Your task to perform on an android device: turn off sleep mode Image 0: 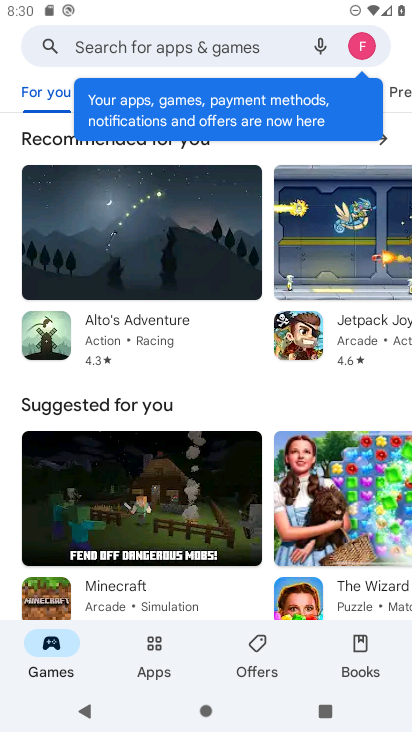
Step 0: press home button
Your task to perform on an android device: turn off sleep mode Image 1: 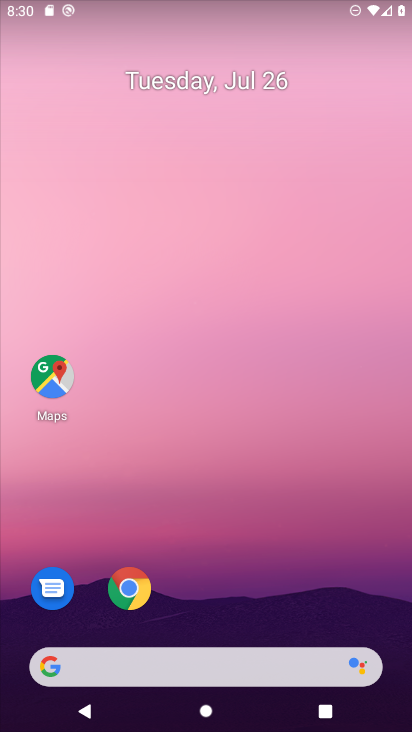
Step 1: drag from (220, 620) to (206, 58)
Your task to perform on an android device: turn off sleep mode Image 2: 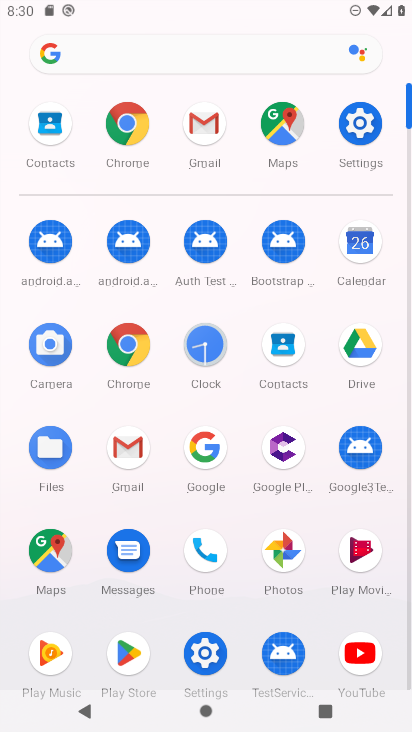
Step 2: click (357, 135)
Your task to perform on an android device: turn off sleep mode Image 3: 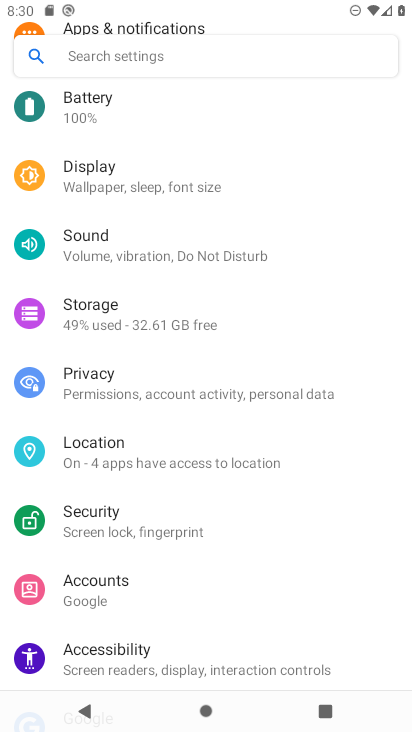
Step 3: click (80, 187)
Your task to perform on an android device: turn off sleep mode Image 4: 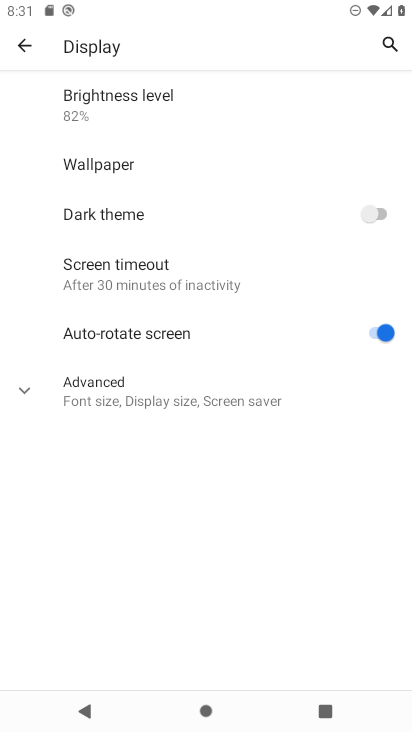
Step 4: click (32, 395)
Your task to perform on an android device: turn off sleep mode Image 5: 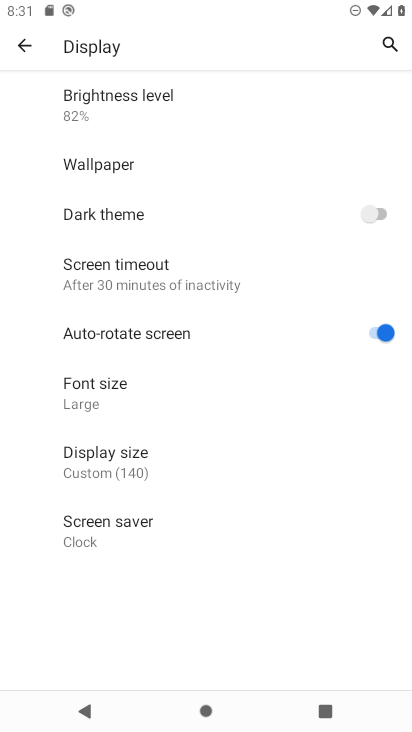
Step 5: task complete